Your task to perform on an android device: turn off notifications in google photos Image 0: 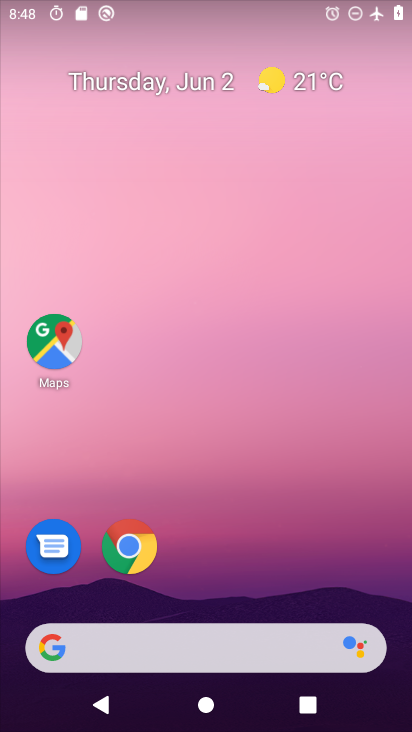
Step 0: drag from (301, 531) to (306, 101)
Your task to perform on an android device: turn off notifications in google photos Image 1: 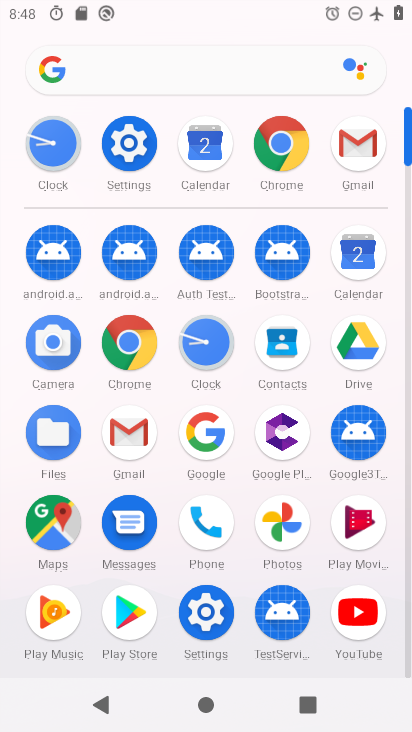
Step 1: click (224, 627)
Your task to perform on an android device: turn off notifications in google photos Image 2: 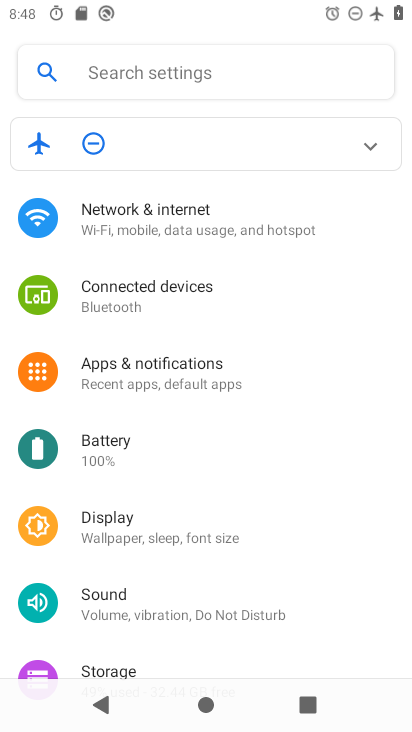
Step 2: click (218, 364)
Your task to perform on an android device: turn off notifications in google photos Image 3: 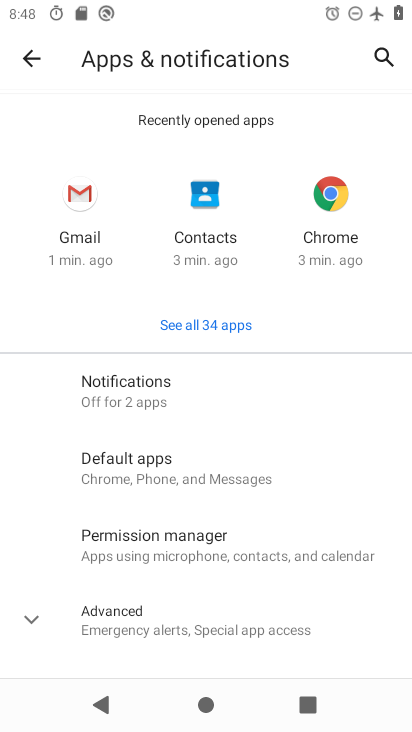
Step 3: click (184, 387)
Your task to perform on an android device: turn off notifications in google photos Image 4: 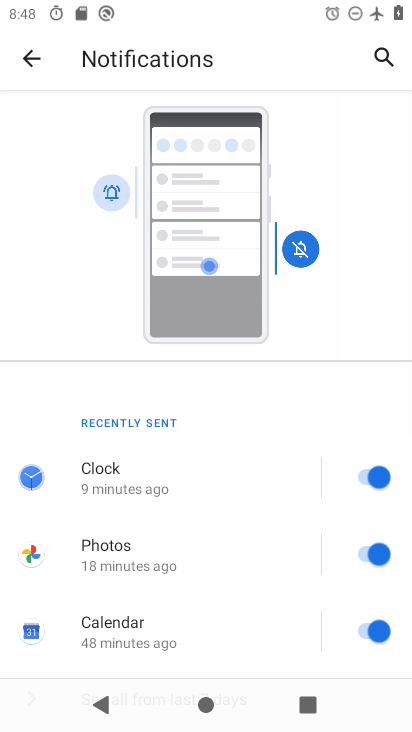
Step 4: task complete